Your task to perform on an android device: check the backup settings in the google photos Image 0: 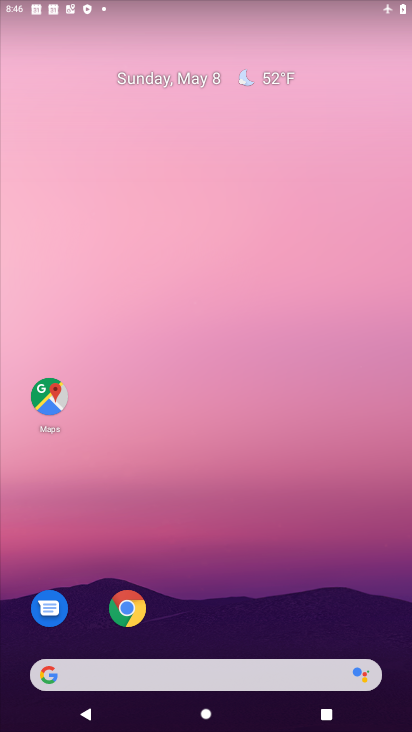
Step 0: drag from (298, 568) to (26, 90)
Your task to perform on an android device: check the backup settings in the google photos Image 1: 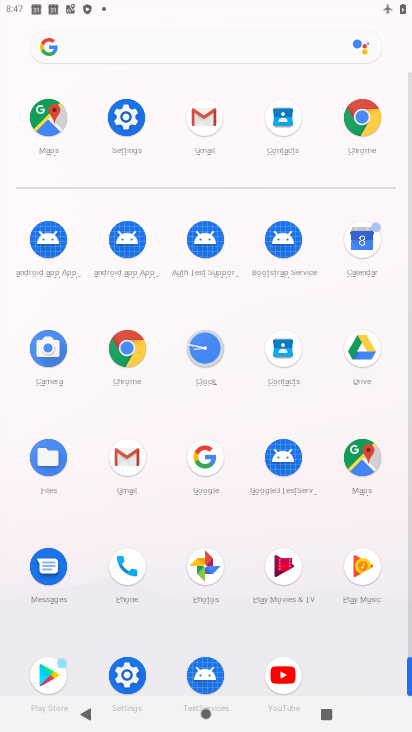
Step 1: click (205, 565)
Your task to perform on an android device: check the backup settings in the google photos Image 2: 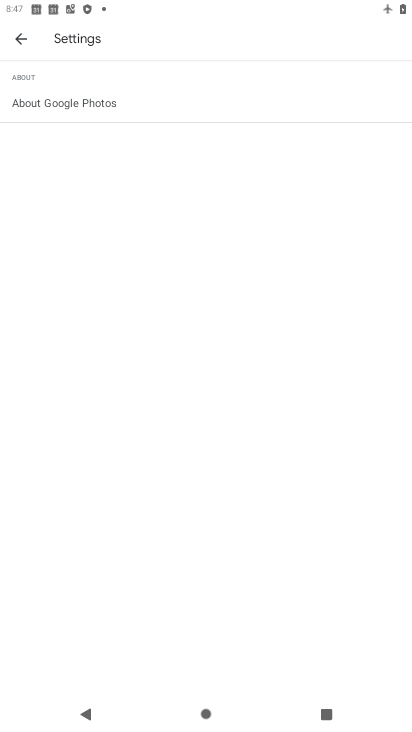
Step 2: click (19, 37)
Your task to perform on an android device: check the backup settings in the google photos Image 3: 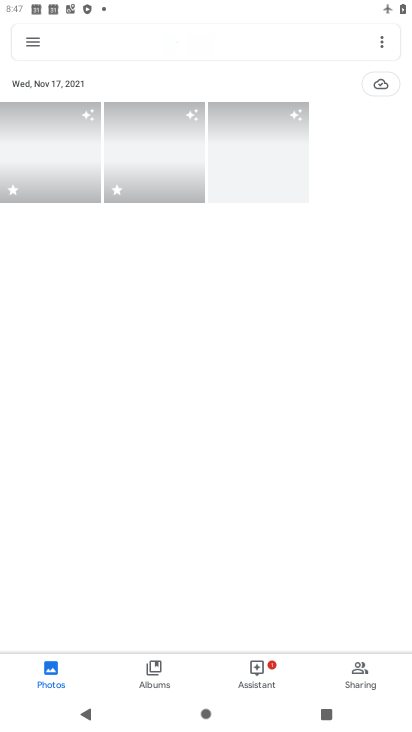
Step 3: click (350, 680)
Your task to perform on an android device: check the backup settings in the google photos Image 4: 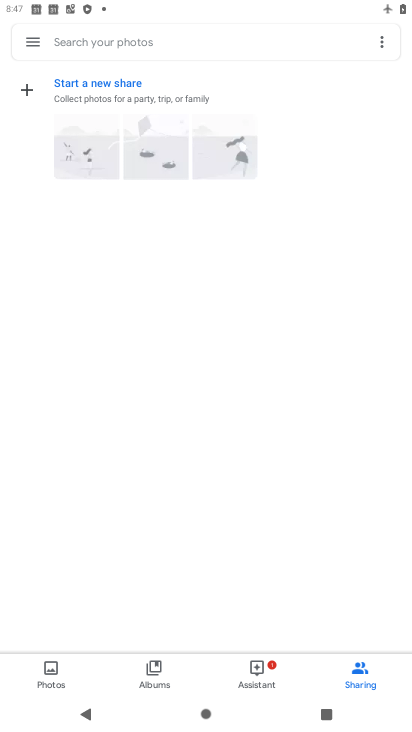
Step 4: click (31, 44)
Your task to perform on an android device: check the backup settings in the google photos Image 5: 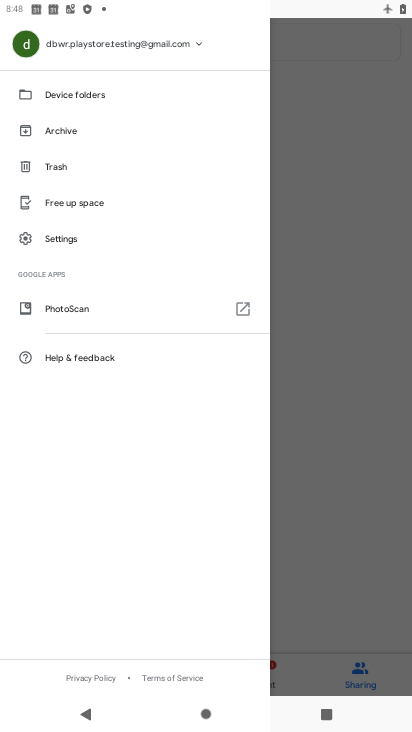
Step 5: click (43, 237)
Your task to perform on an android device: check the backup settings in the google photos Image 6: 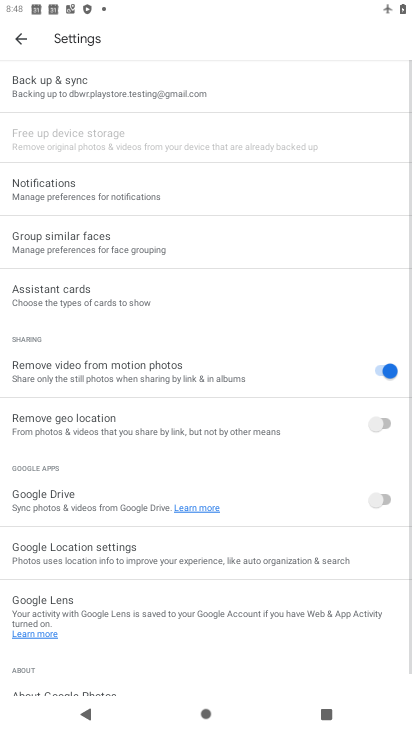
Step 6: click (97, 69)
Your task to perform on an android device: check the backup settings in the google photos Image 7: 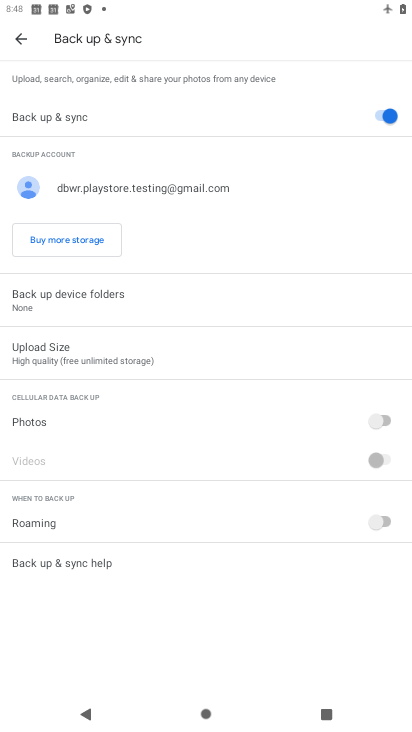
Step 7: task complete